Your task to perform on an android device: Open calendar and show me the second week of next month Image 0: 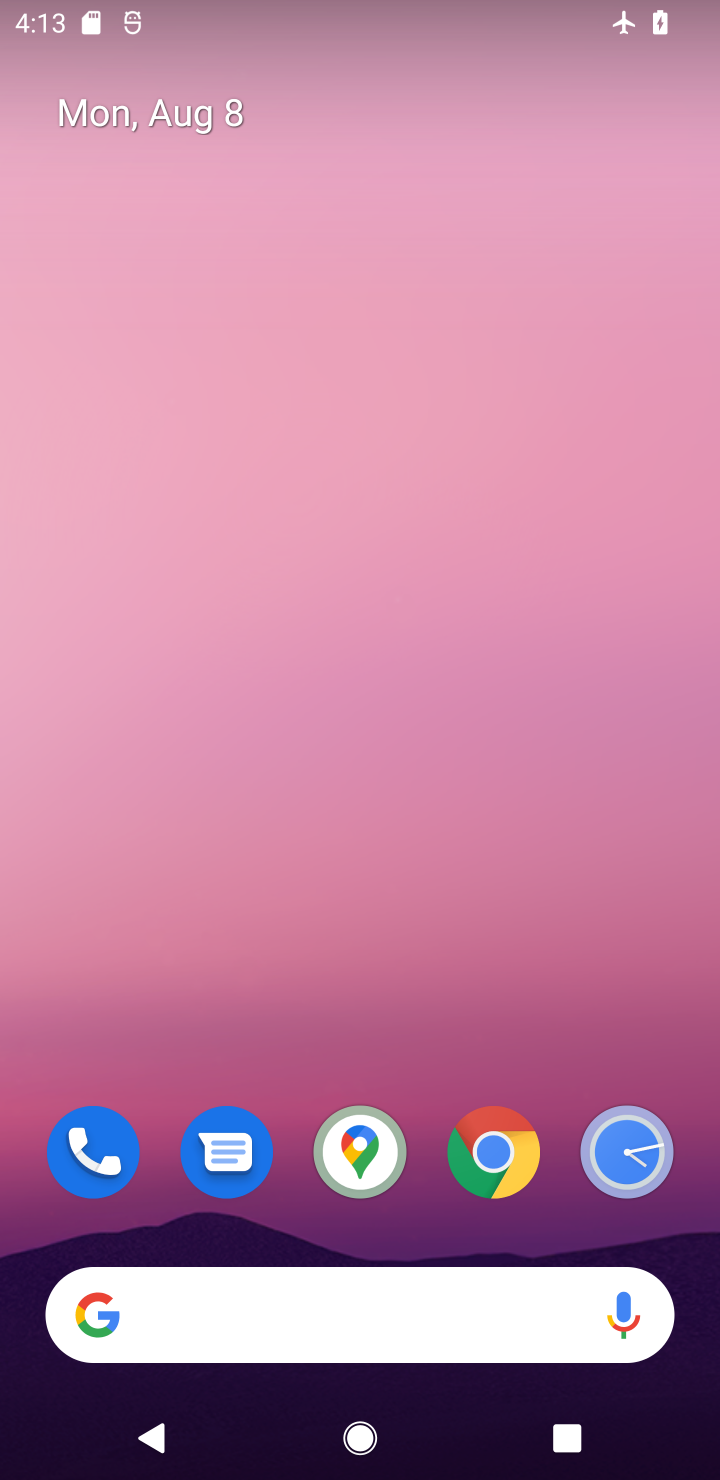
Step 0: drag from (386, 1153) to (592, 0)
Your task to perform on an android device: Open calendar and show me the second week of next month Image 1: 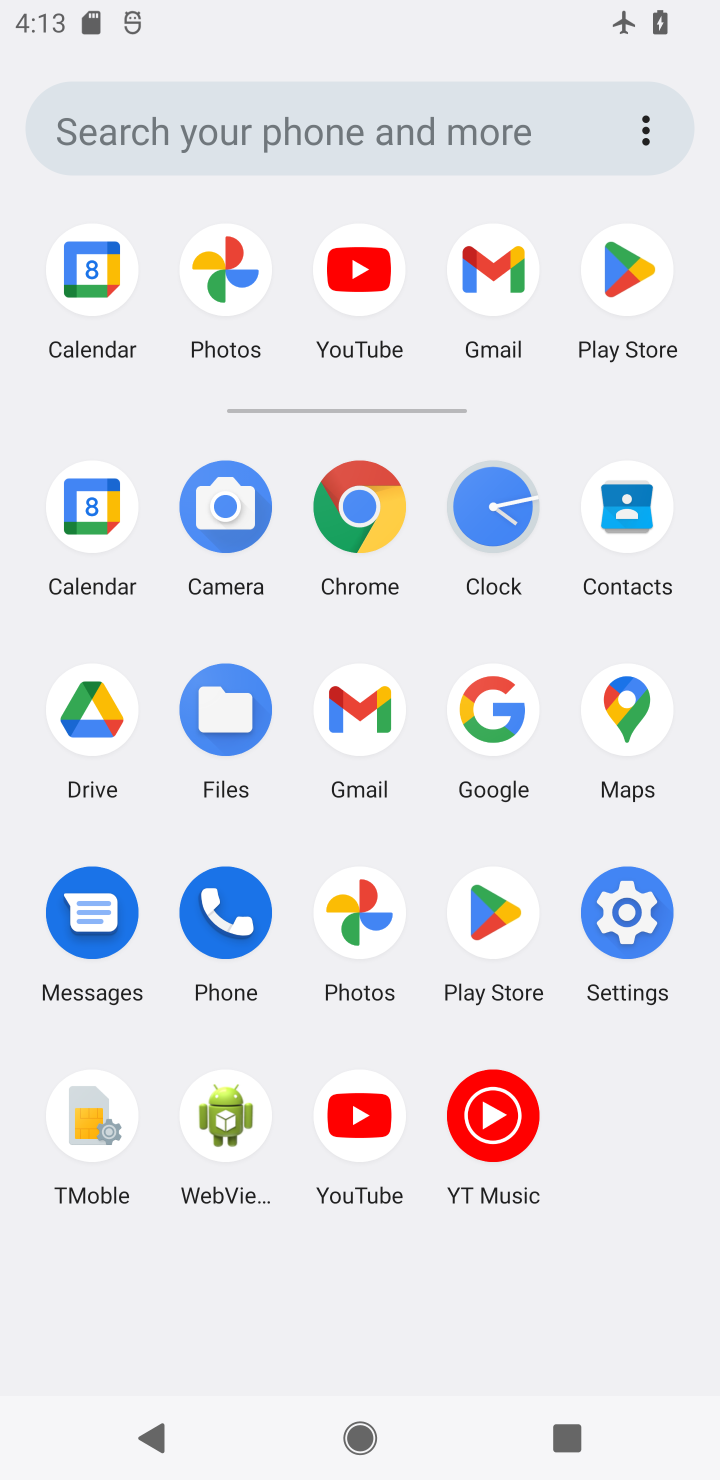
Step 1: click (80, 501)
Your task to perform on an android device: Open calendar and show me the second week of next month Image 2: 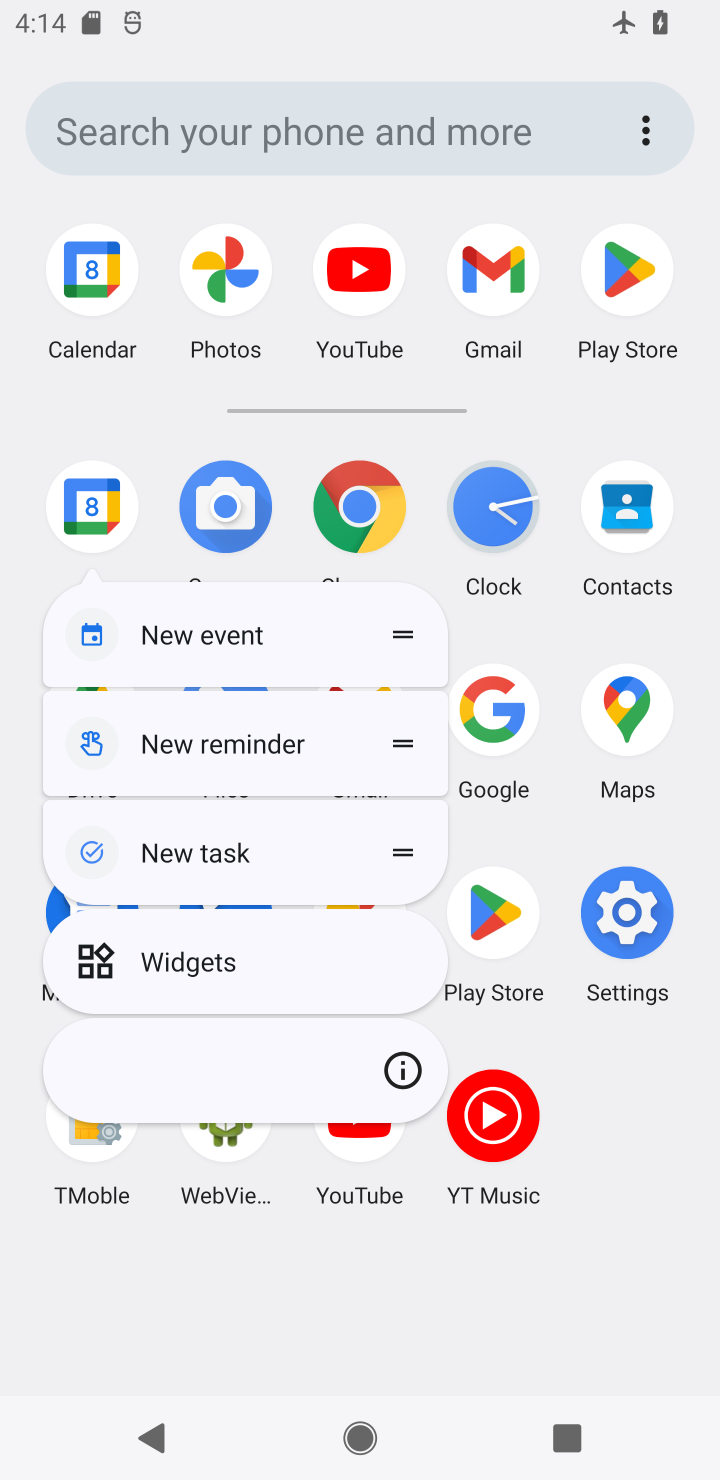
Step 2: click (80, 501)
Your task to perform on an android device: Open calendar and show me the second week of next month Image 3: 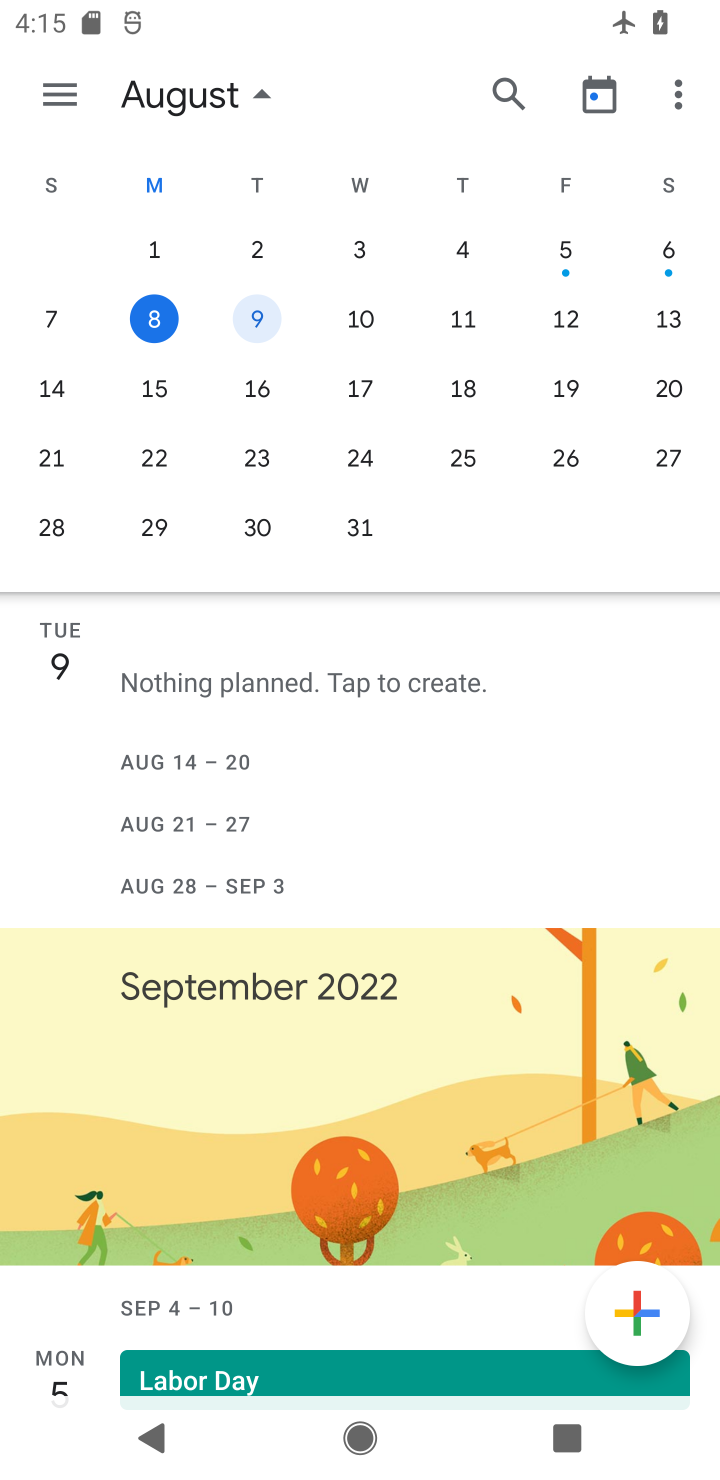
Step 3: click (258, 92)
Your task to perform on an android device: Open calendar and show me the second week of next month Image 4: 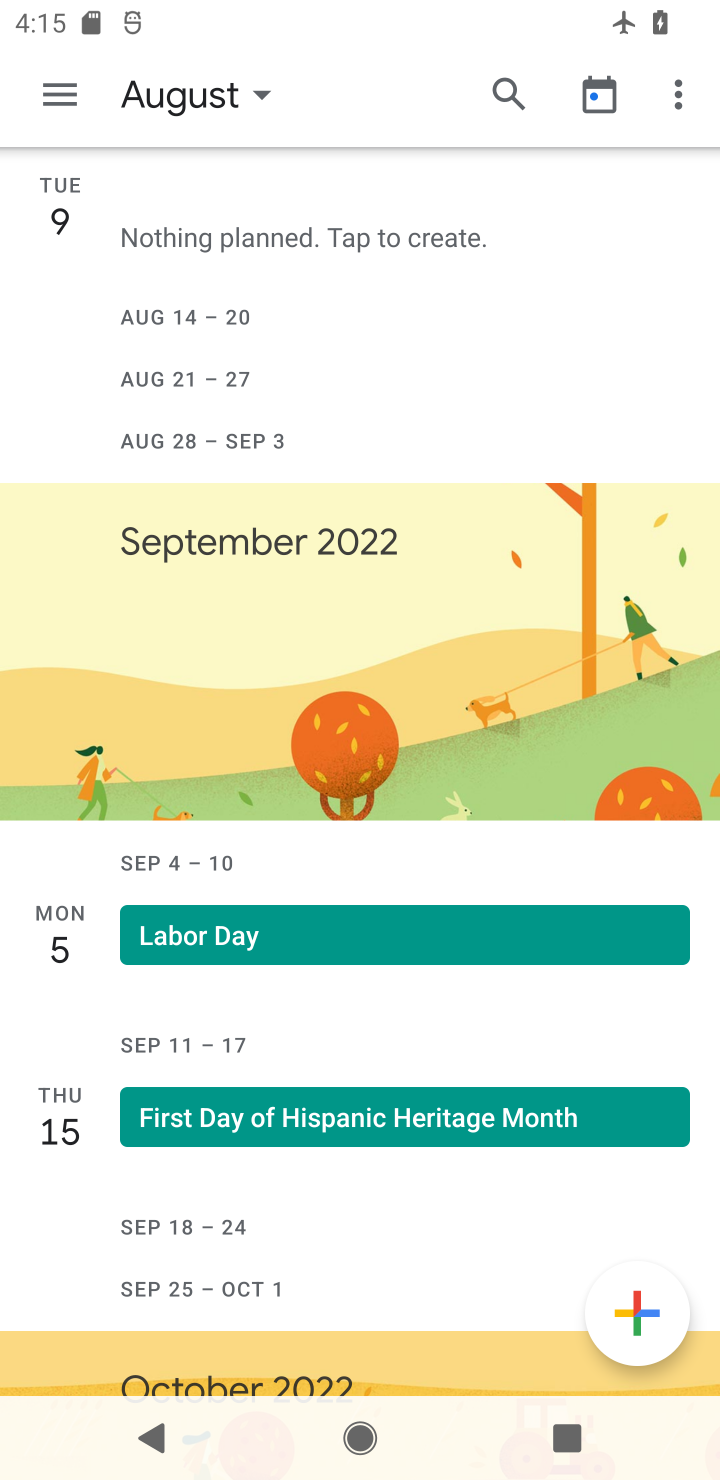
Step 4: click (211, 96)
Your task to perform on an android device: Open calendar and show me the second week of next month Image 5: 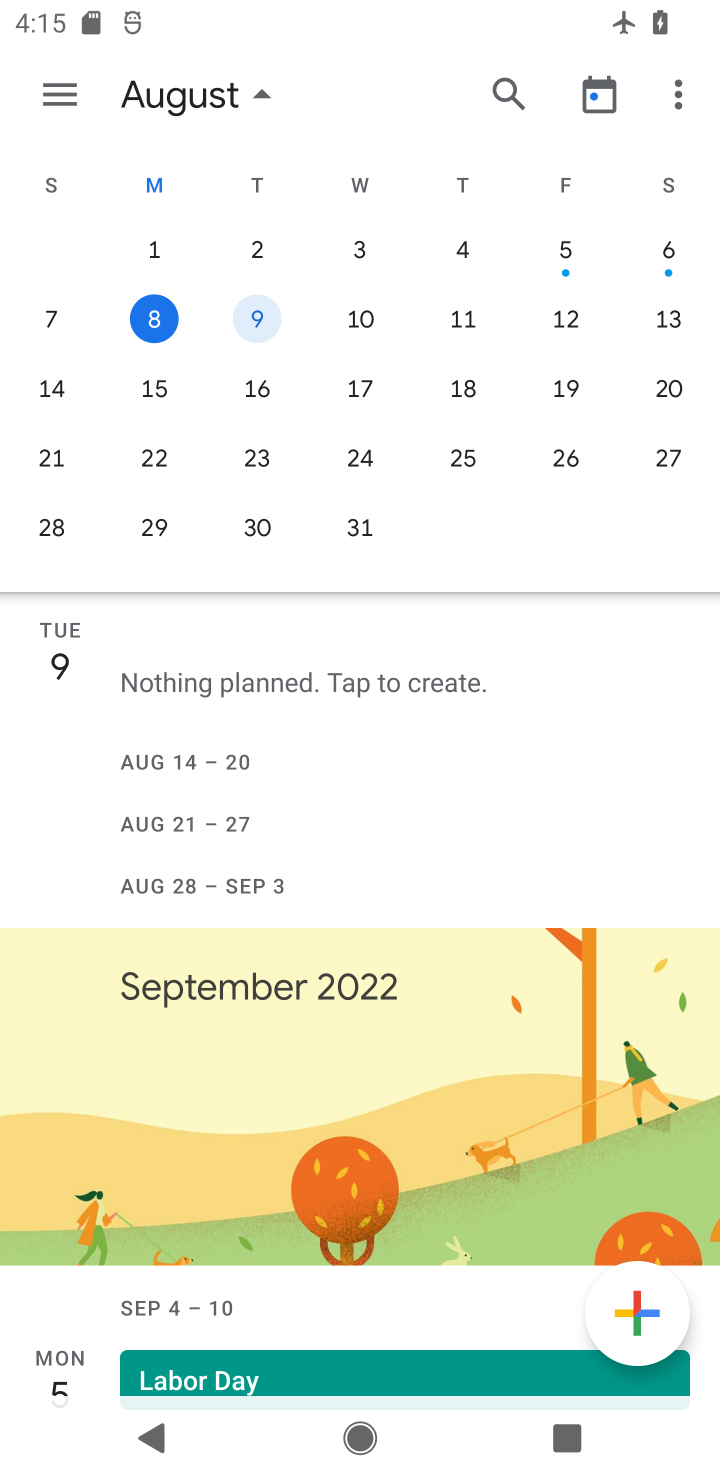
Step 5: drag from (632, 413) to (1, 443)
Your task to perform on an android device: Open calendar and show me the second week of next month Image 6: 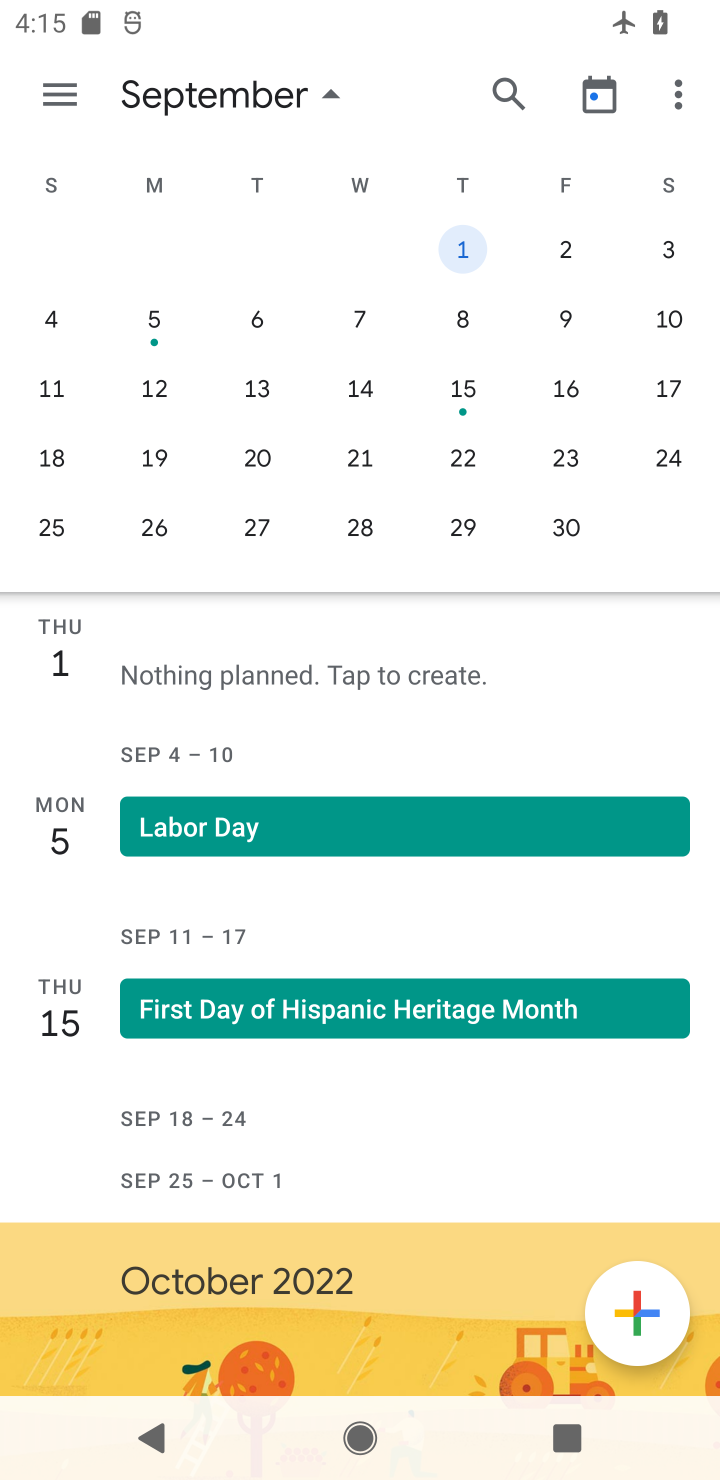
Step 6: click (136, 310)
Your task to perform on an android device: Open calendar and show me the second week of next month Image 7: 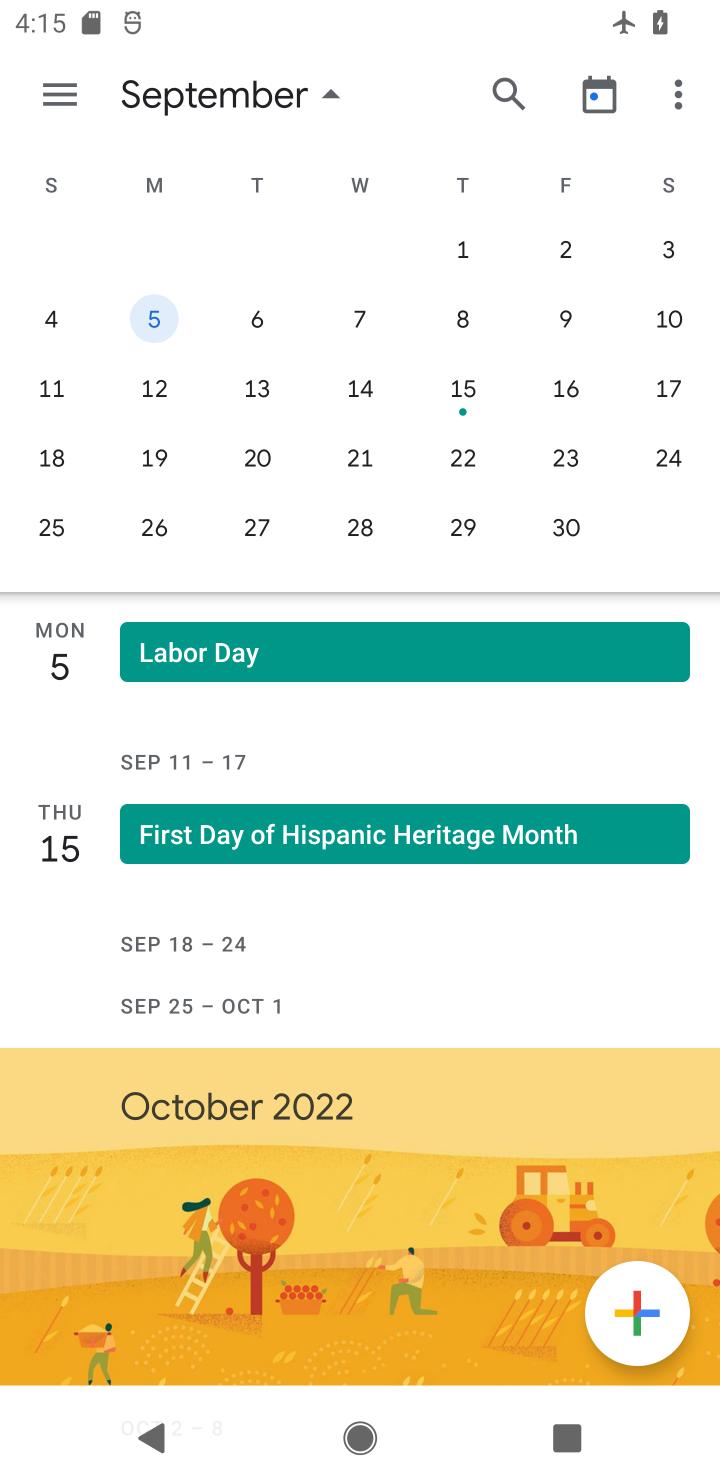
Step 7: task complete